Your task to perform on an android device: toggle priority inbox in the gmail app Image 0: 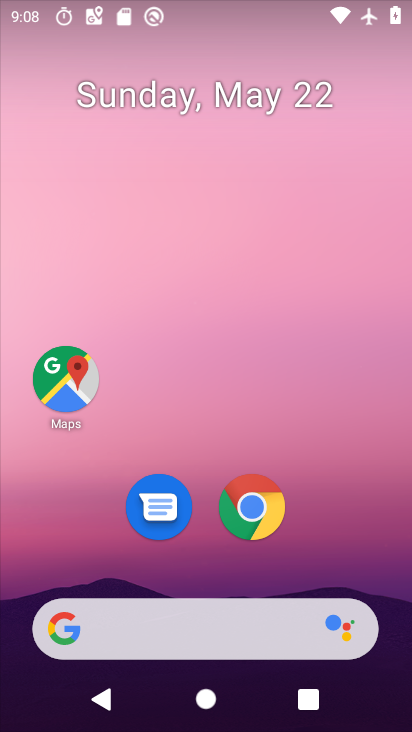
Step 0: drag from (202, 573) to (312, 22)
Your task to perform on an android device: toggle priority inbox in the gmail app Image 1: 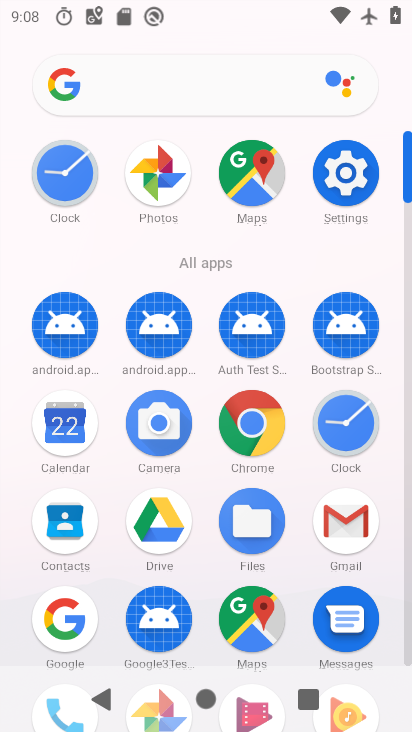
Step 1: click (349, 544)
Your task to perform on an android device: toggle priority inbox in the gmail app Image 2: 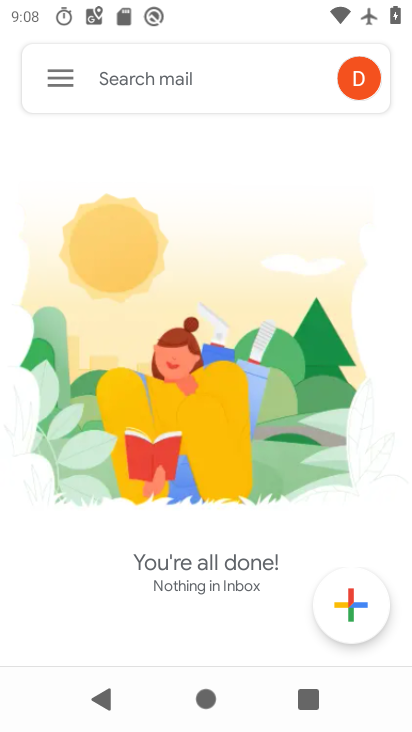
Step 2: click (55, 81)
Your task to perform on an android device: toggle priority inbox in the gmail app Image 3: 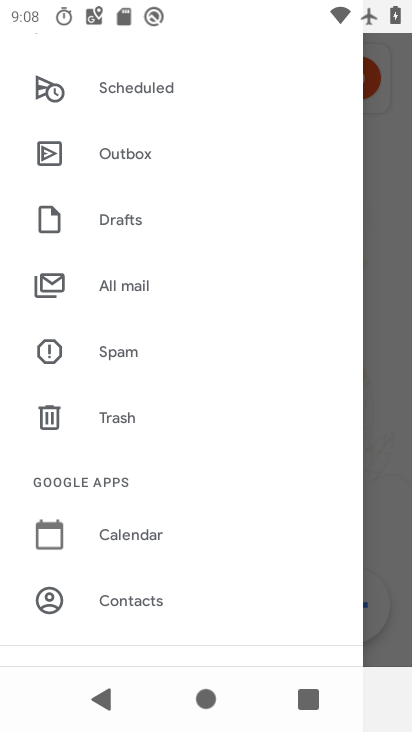
Step 3: click (109, 599)
Your task to perform on an android device: toggle priority inbox in the gmail app Image 4: 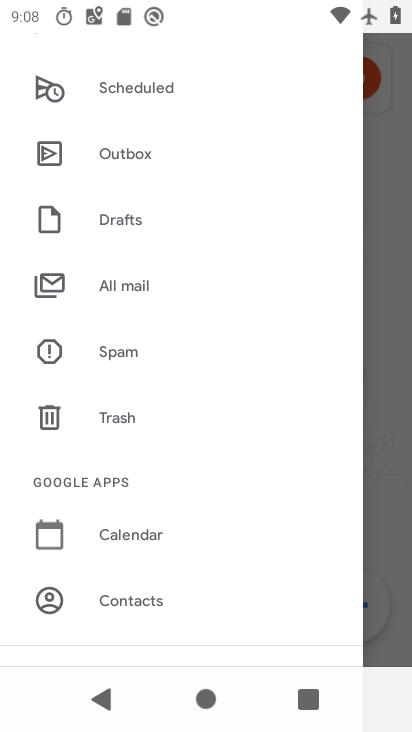
Step 4: drag from (109, 599) to (189, 196)
Your task to perform on an android device: toggle priority inbox in the gmail app Image 5: 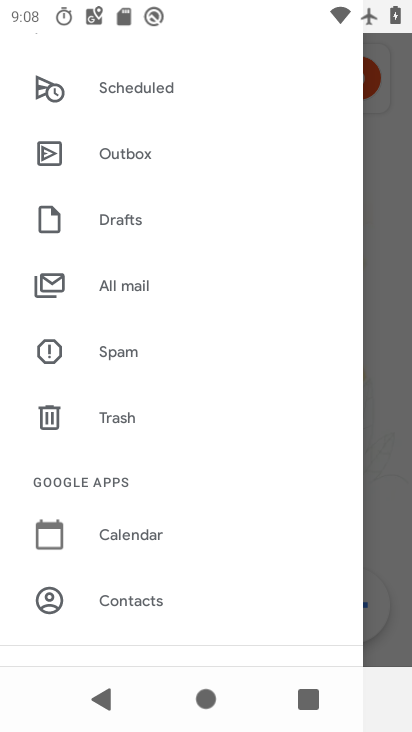
Step 5: drag from (126, 632) to (186, 159)
Your task to perform on an android device: toggle priority inbox in the gmail app Image 6: 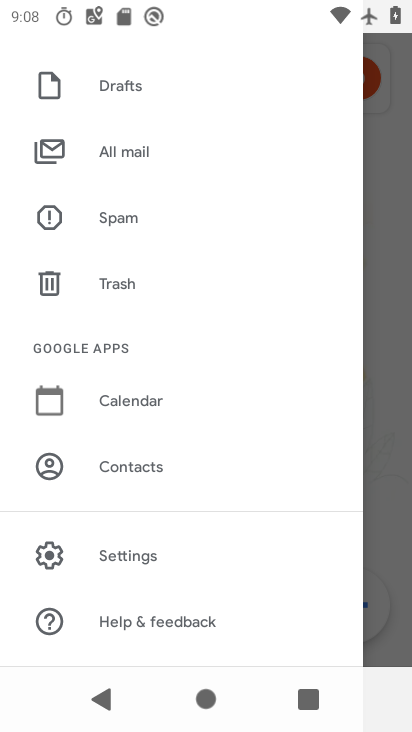
Step 6: click (114, 550)
Your task to perform on an android device: toggle priority inbox in the gmail app Image 7: 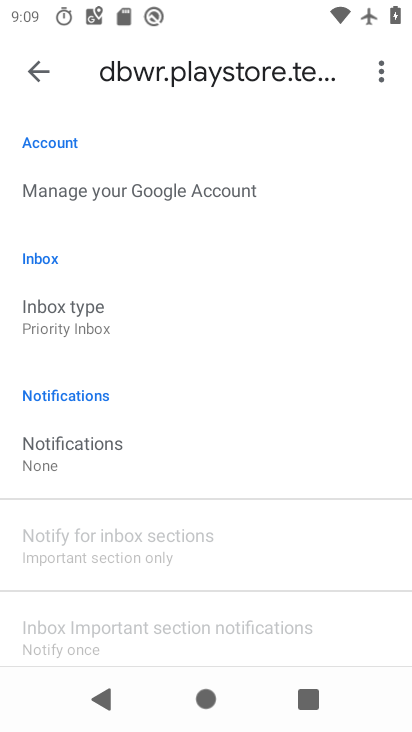
Step 7: click (79, 328)
Your task to perform on an android device: toggle priority inbox in the gmail app Image 8: 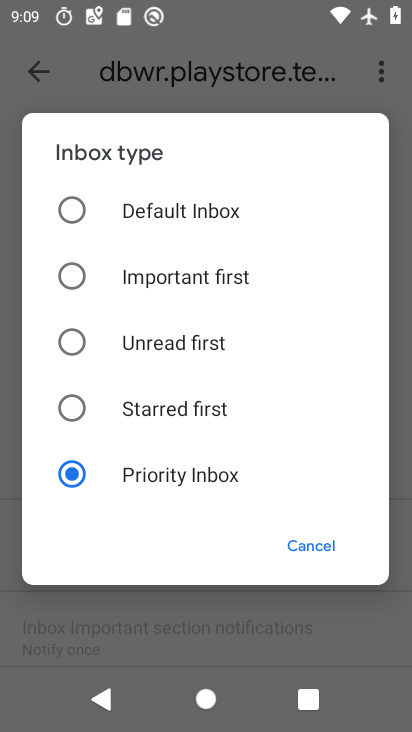
Step 8: click (201, 332)
Your task to perform on an android device: toggle priority inbox in the gmail app Image 9: 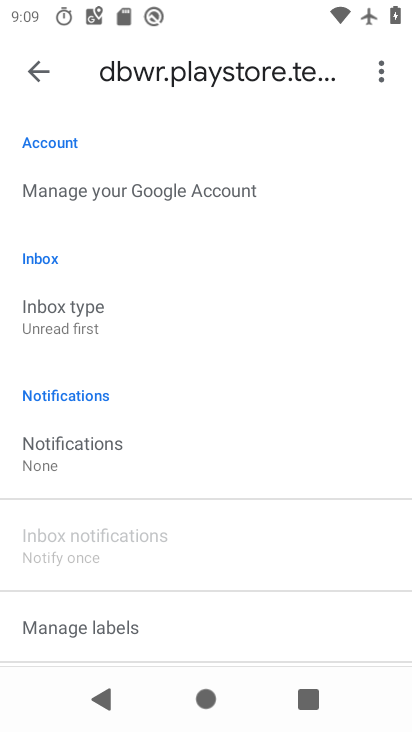
Step 9: task complete